Your task to perform on an android device: turn off wifi Image 0: 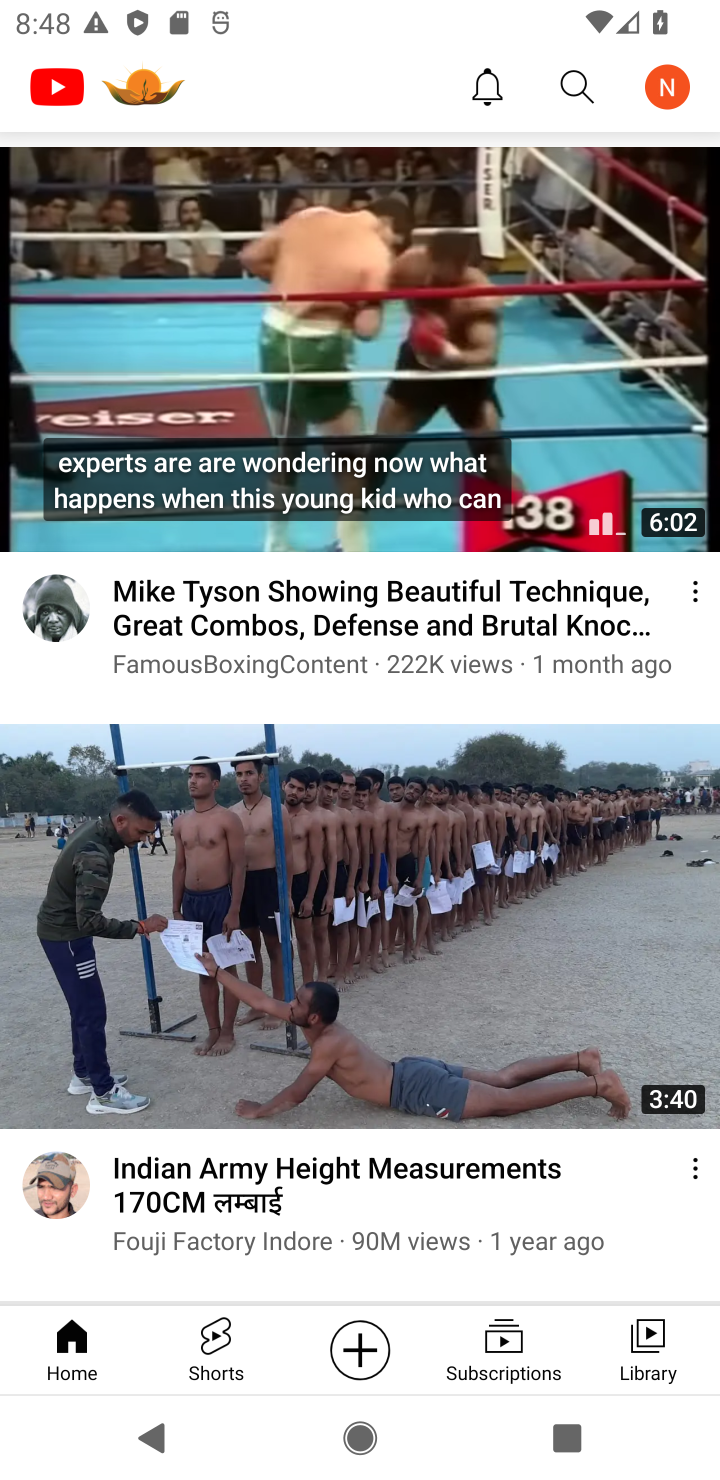
Step 0: drag from (348, 17) to (654, 1032)
Your task to perform on an android device: turn off wifi Image 1: 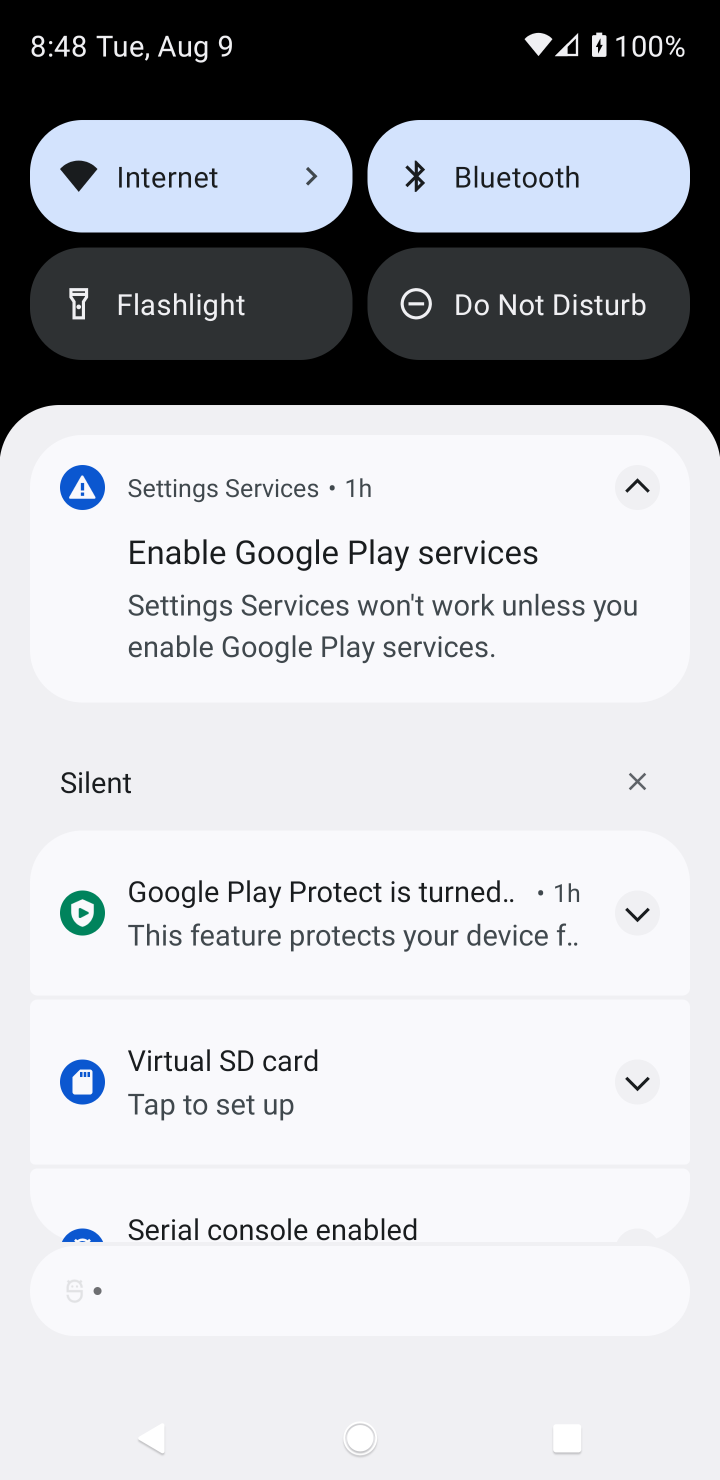
Step 1: click (243, 177)
Your task to perform on an android device: turn off wifi Image 2: 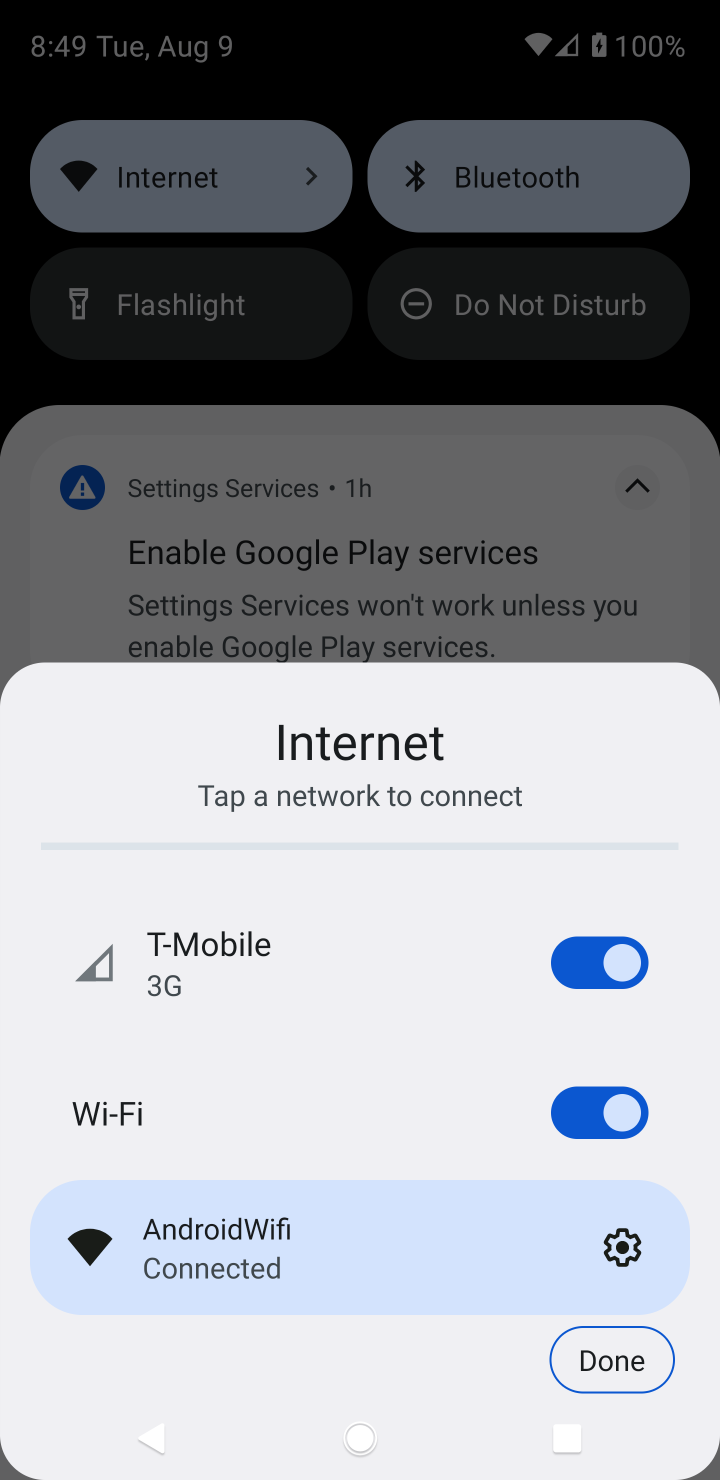
Step 2: click (627, 1101)
Your task to perform on an android device: turn off wifi Image 3: 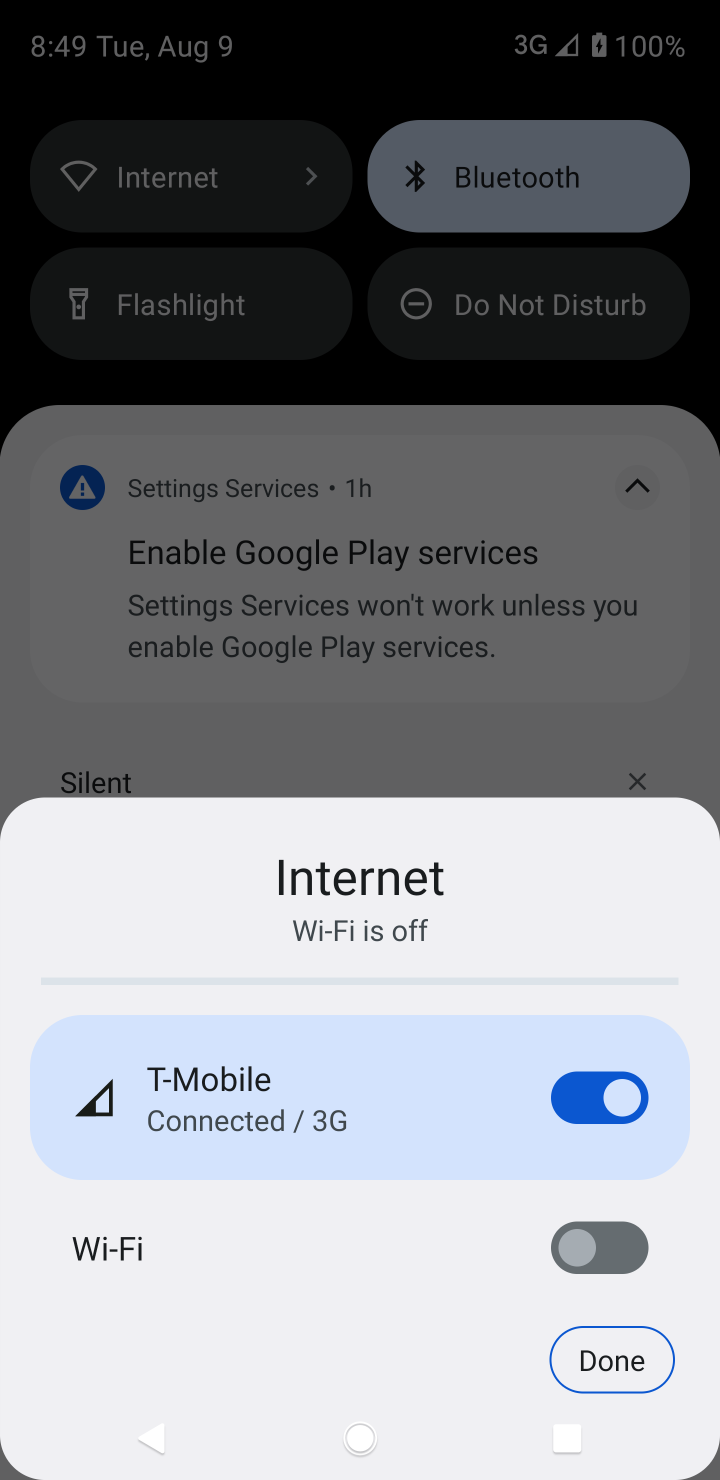
Step 3: task complete